Your task to perform on an android device: Open Chrome and go to settings Image 0: 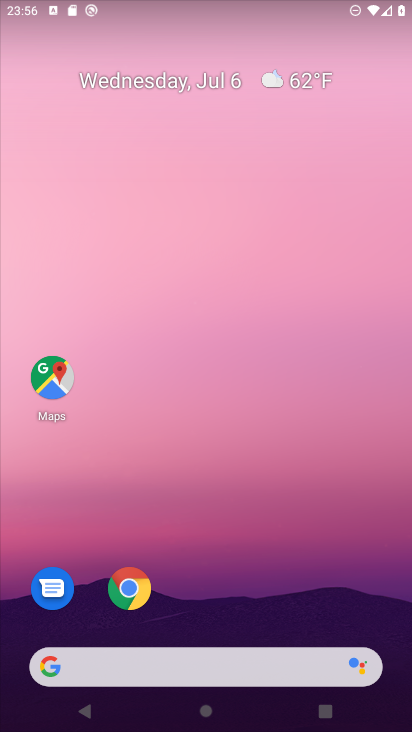
Step 0: click (129, 584)
Your task to perform on an android device: Open Chrome and go to settings Image 1: 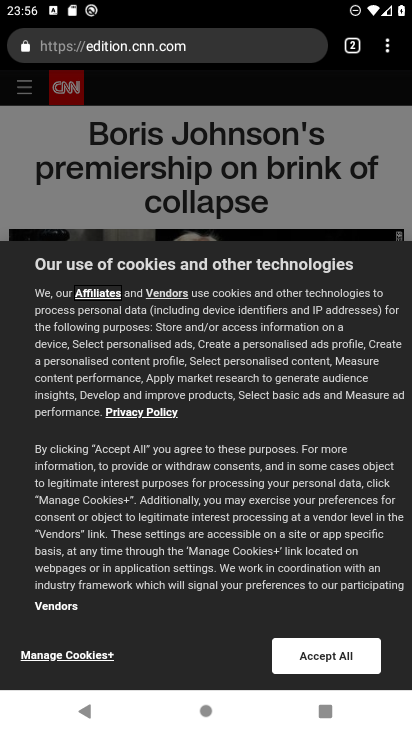
Step 1: click (388, 52)
Your task to perform on an android device: Open Chrome and go to settings Image 2: 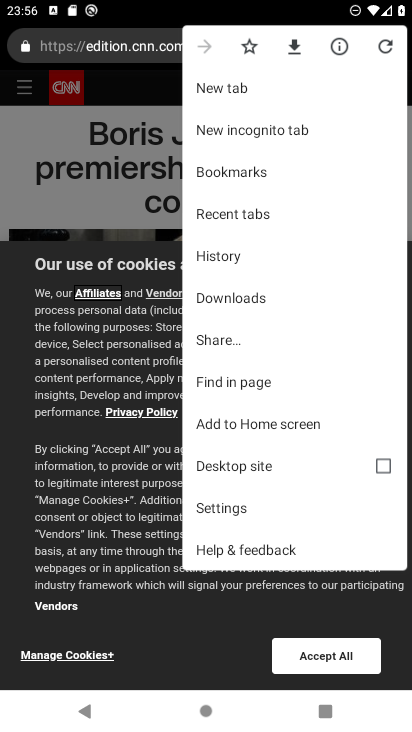
Step 2: click (219, 498)
Your task to perform on an android device: Open Chrome and go to settings Image 3: 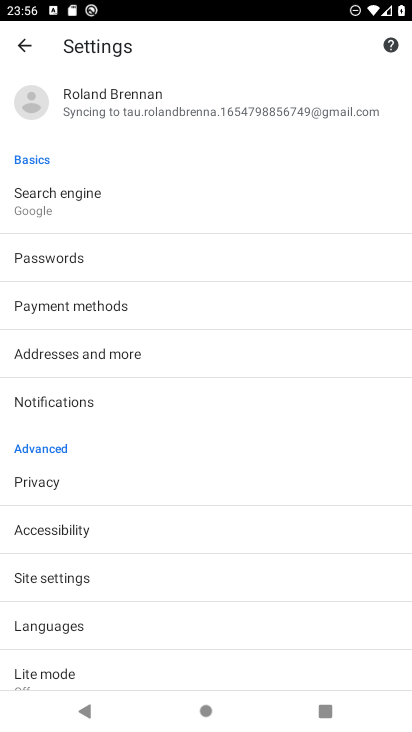
Step 3: task complete